Your task to perform on an android device: open sync settings in chrome Image 0: 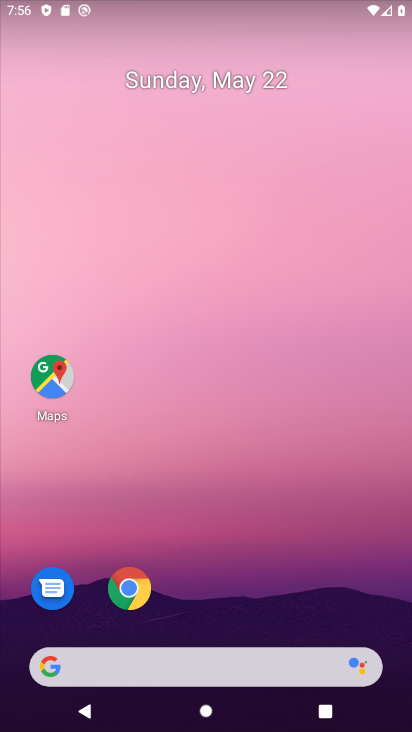
Step 0: click (148, 593)
Your task to perform on an android device: open sync settings in chrome Image 1: 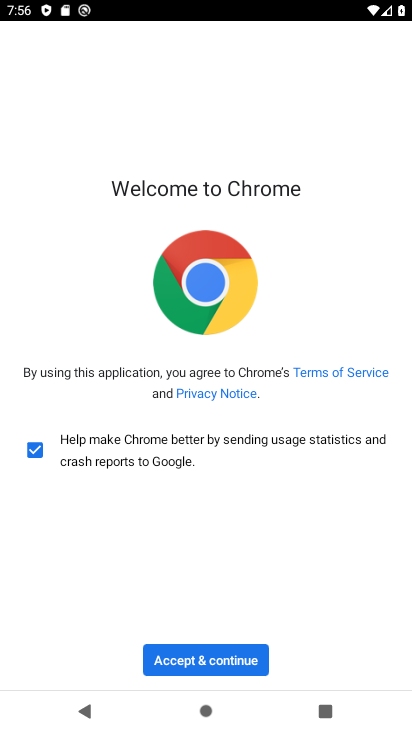
Step 1: click (176, 649)
Your task to perform on an android device: open sync settings in chrome Image 2: 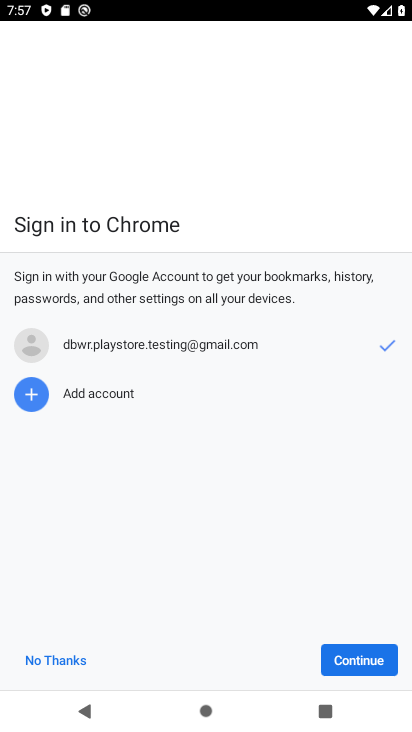
Step 2: click (348, 653)
Your task to perform on an android device: open sync settings in chrome Image 3: 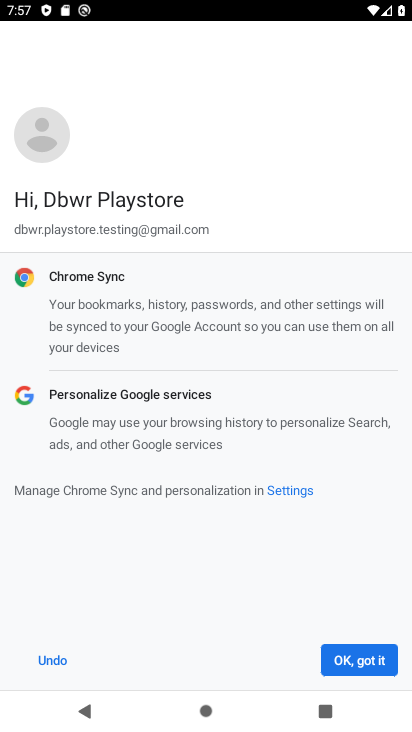
Step 3: click (348, 653)
Your task to perform on an android device: open sync settings in chrome Image 4: 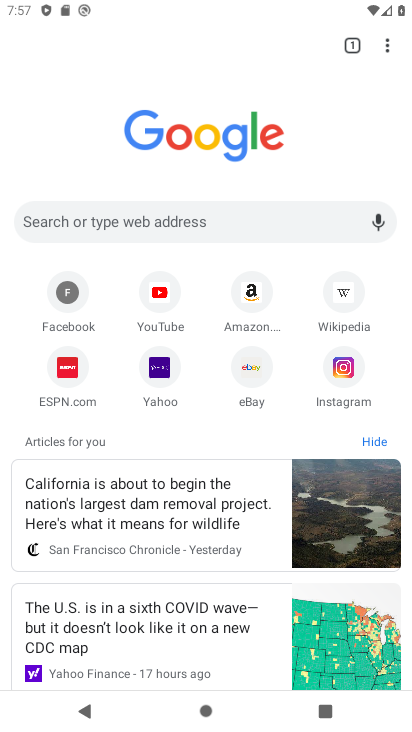
Step 4: click (385, 47)
Your task to perform on an android device: open sync settings in chrome Image 5: 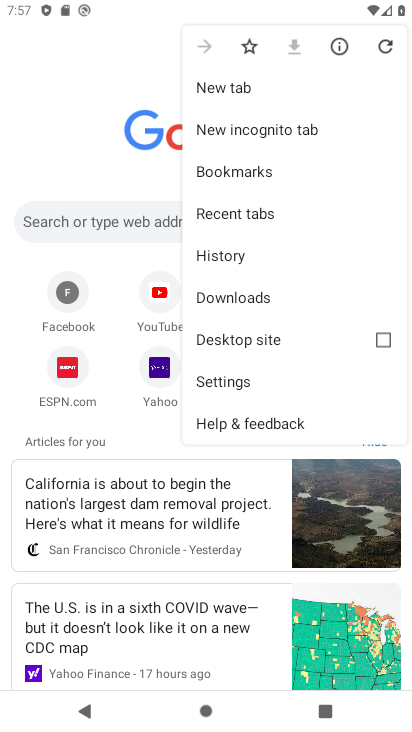
Step 5: click (237, 379)
Your task to perform on an android device: open sync settings in chrome Image 6: 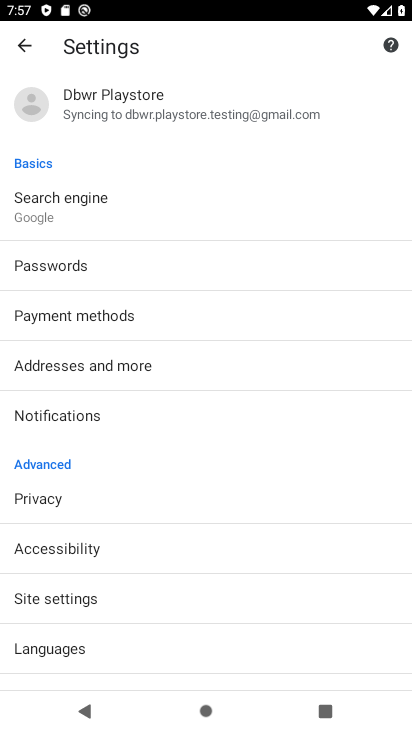
Step 6: click (135, 110)
Your task to perform on an android device: open sync settings in chrome Image 7: 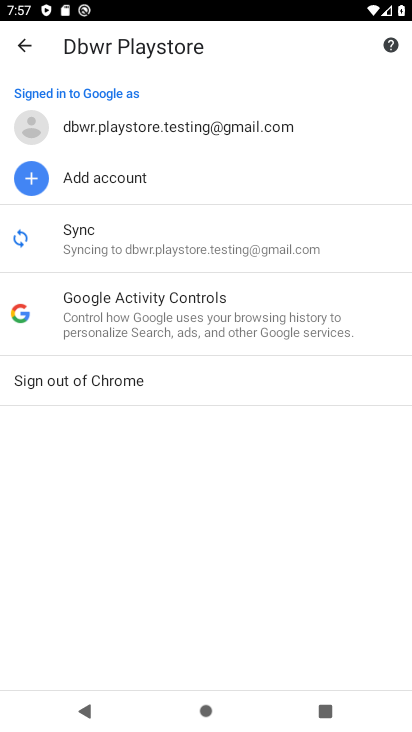
Step 7: click (174, 244)
Your task to perform on an android device: open sync settings in chrome Image 8: 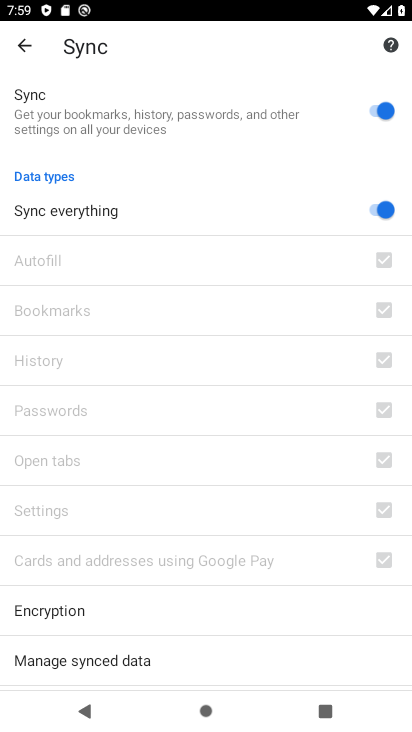
Step 8: task complete